Your task to perform on an android device: Show the shopping cart on amazon. Add razer blade to the cart on amazon, then select checkout. Image 0: 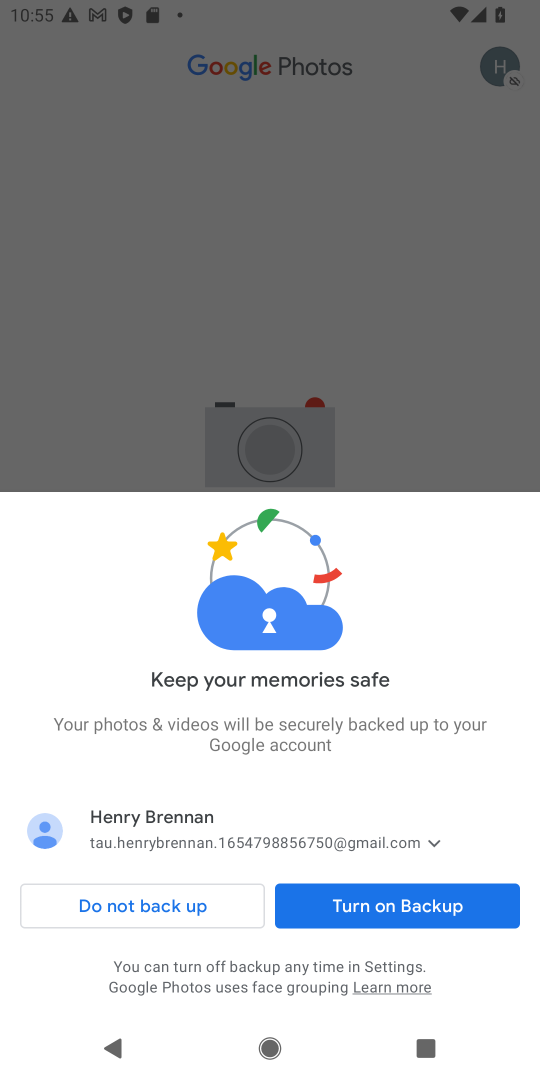
Step 0: press home button
Your task to perform on an android device: Show the shopping cart on amazon. Add razer blade to the cart on amazon, then select checkout. Image 1: 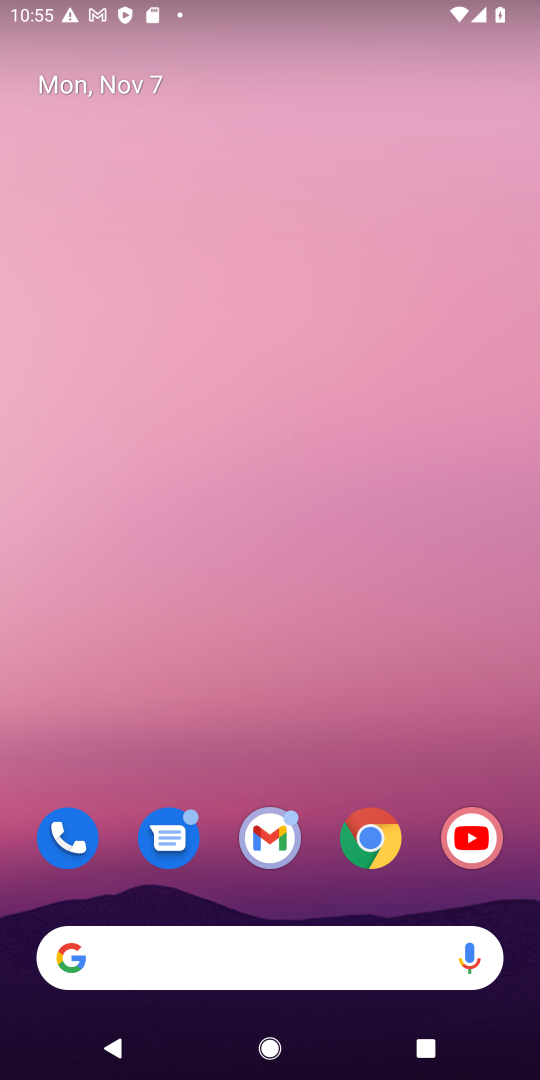
Step 1: click (379, 842)
Your task to perform on an android device: Show the shopping cart on amazon. Add razer blade to the cart on amazon, then select checkout. Image 2: 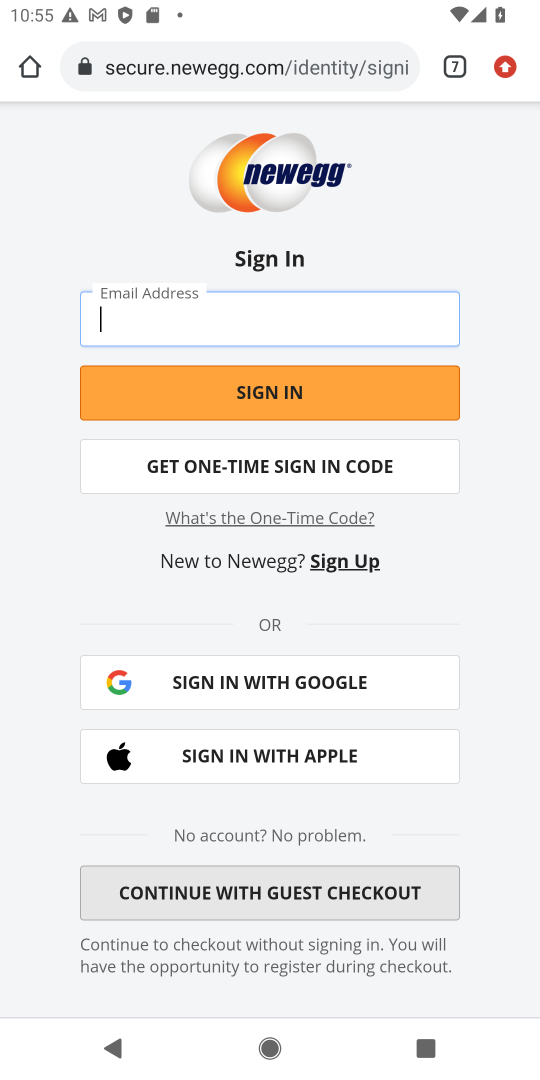
Step 2: click (444, 65)
Your task to perform on an android device: Show the shopping cart on amazon. Add razer blade to the cart on amazon, then select checkout. Image 3: 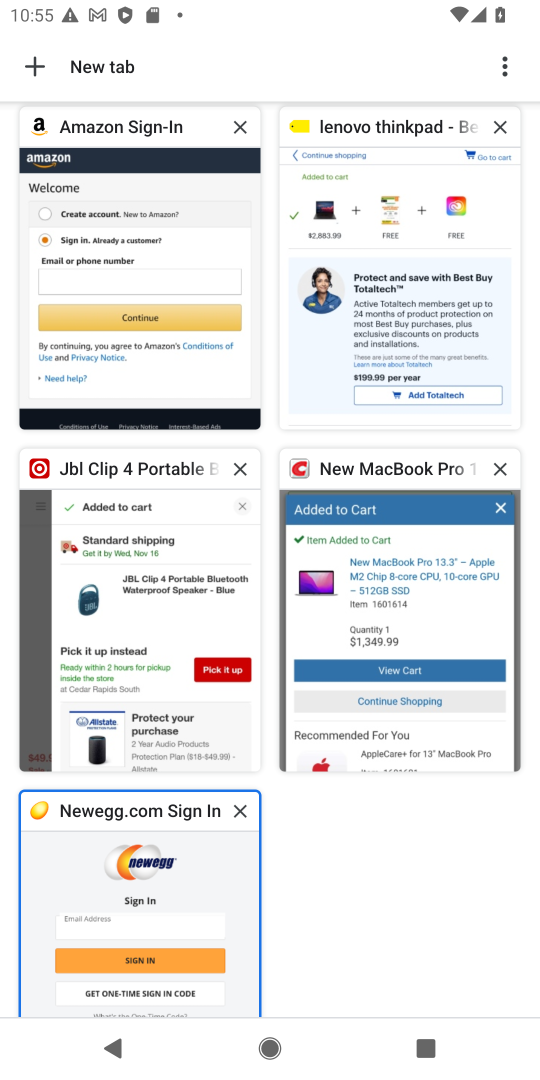
Step 3: click (177, 192)
Your task to perform on an android device: Show the shopping cart on amazon. Add razer blade to the cart on amazon, then select checkout. Image 4: 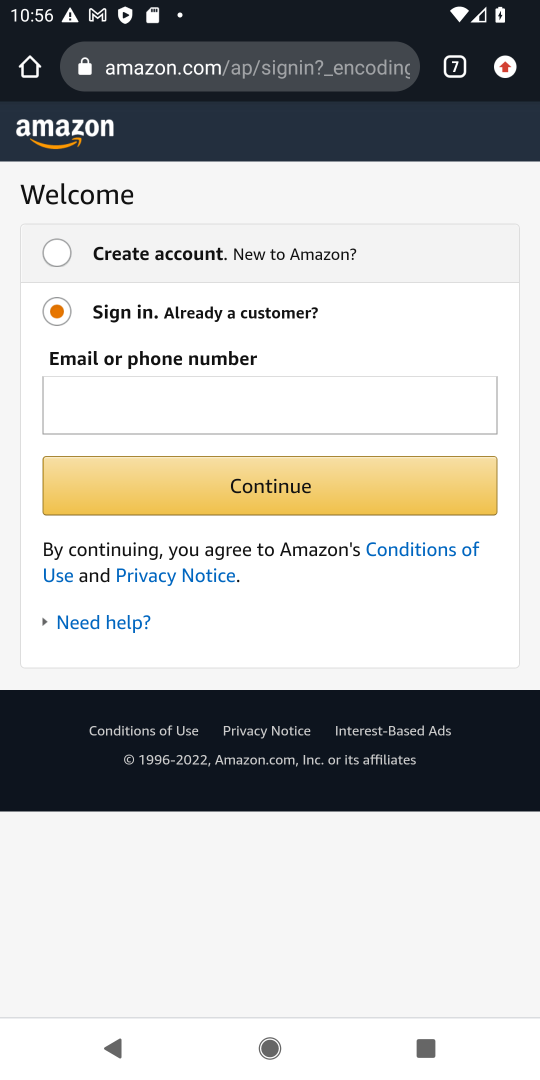
Step 4: press back button
Your task to perform on an android device: Show the shopping cart on amazon. Add razer blade to the cart on amazon, then select checkout. Image 5: 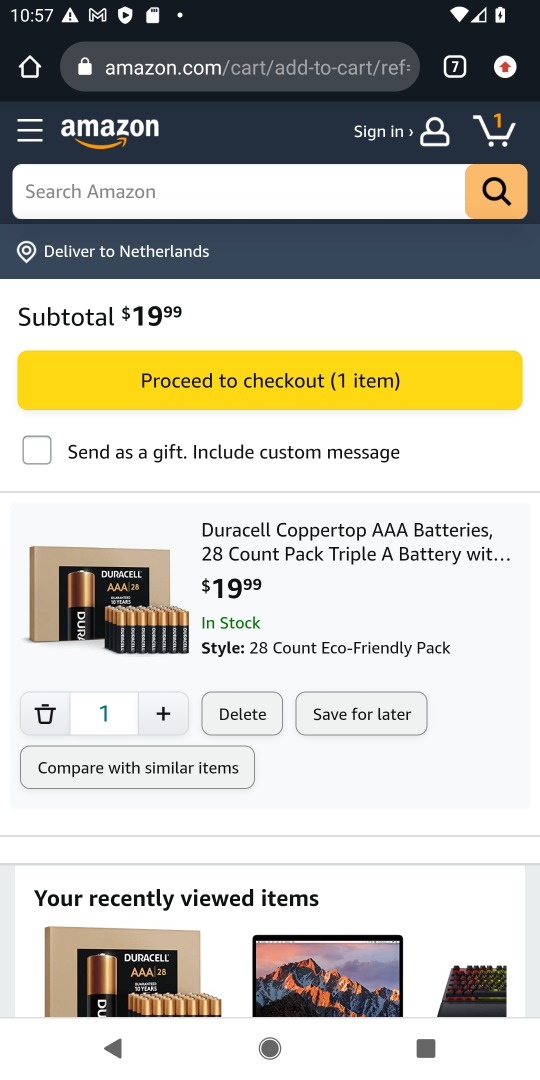
Step 5: click (239, 188)
Your task to perform on an android device: Show the shopping cart on amazon. Add razer blade to the cart on amazon, then select checkout. Image 6: 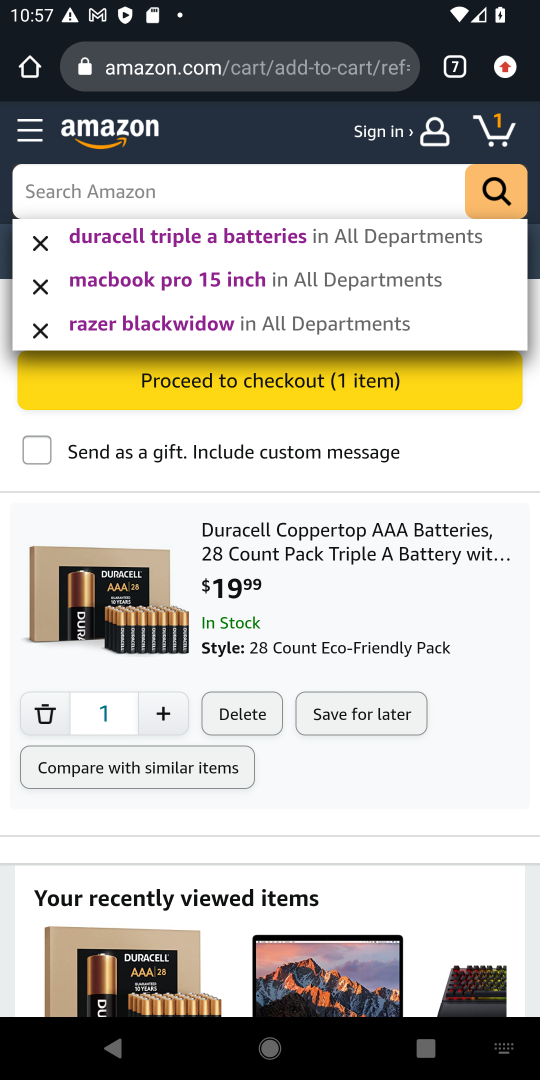
Step 6: type "razer blade"
Your task to perform on an android device: Show the shopping cart on amazon. Add razer blade to the cart on amazon, then select checkout. Image 7: 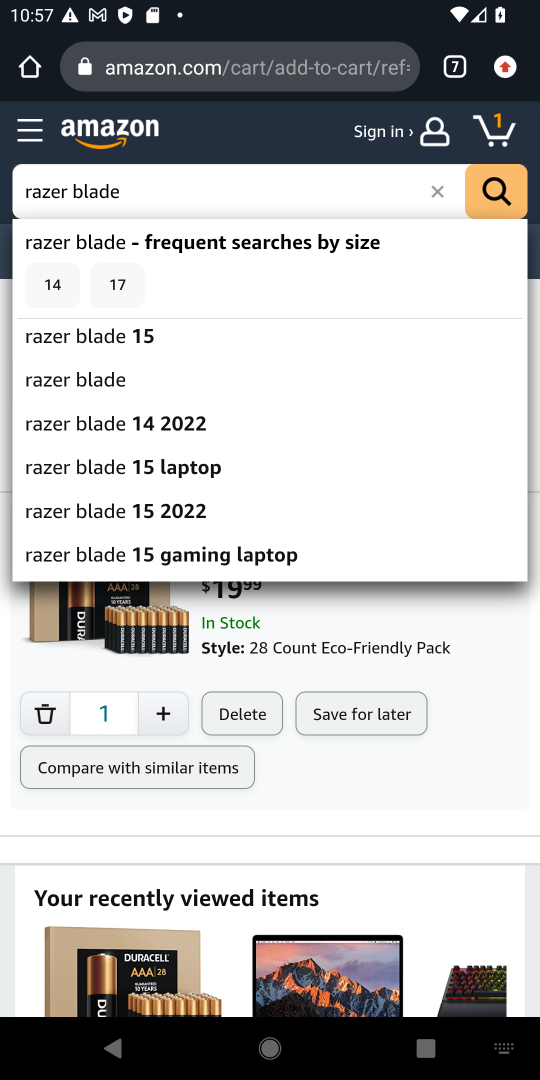
Step 7: click (51, 247)
Your task to perform on an android device: Show the shopping cart on amazon. Add razer blade to the cart on amazon, then select checkout. Image 8: 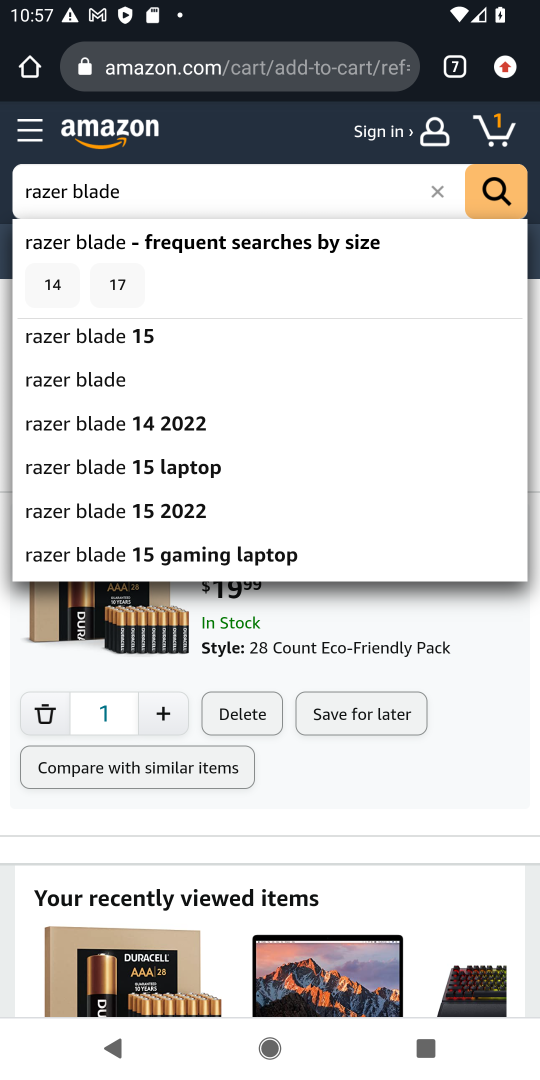
Step 8: click (47, 282)
Your task to perform on an android device: Show the shopping cart on amazon. Add razer blade to the cart on amazon, then select checkout. Image 9: 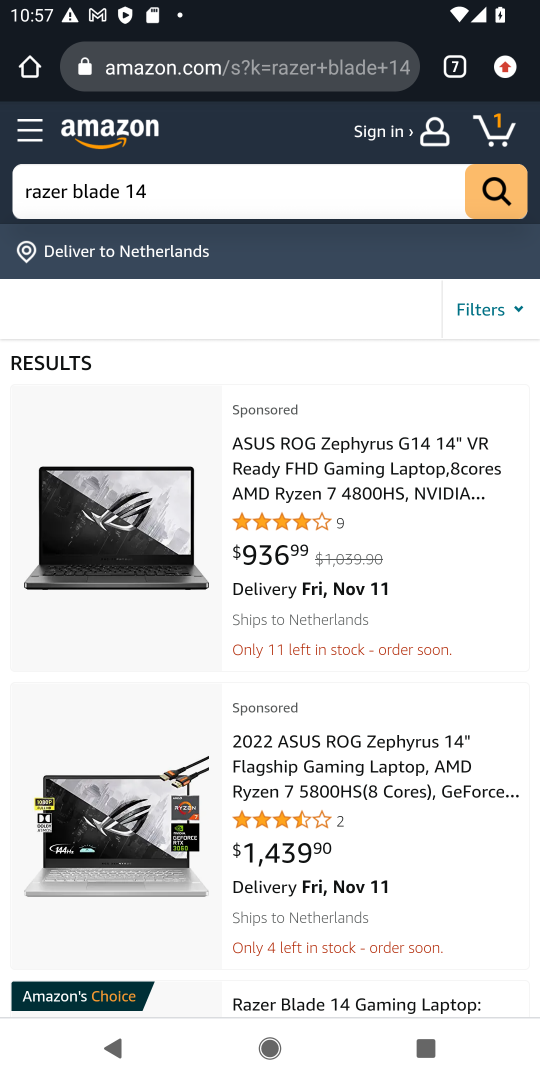
Step 9: click (500, 191)
Your task to perform on an android device: Show the shopping cart on amazon. Add razer blade to the cart on amazon, then select checkout. Image 10: 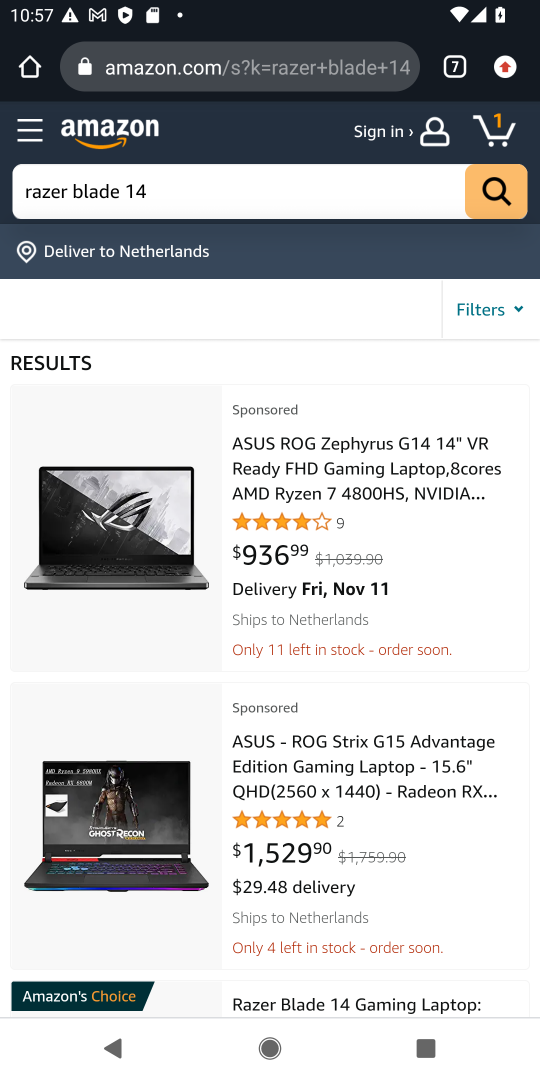
Step 10: drag from (354, 880) to (396, 316)
Your task to perform on an android device: Show the shopping cart on amazon. Add razer blade to the cart on amazon, then select checkout. Image 11: 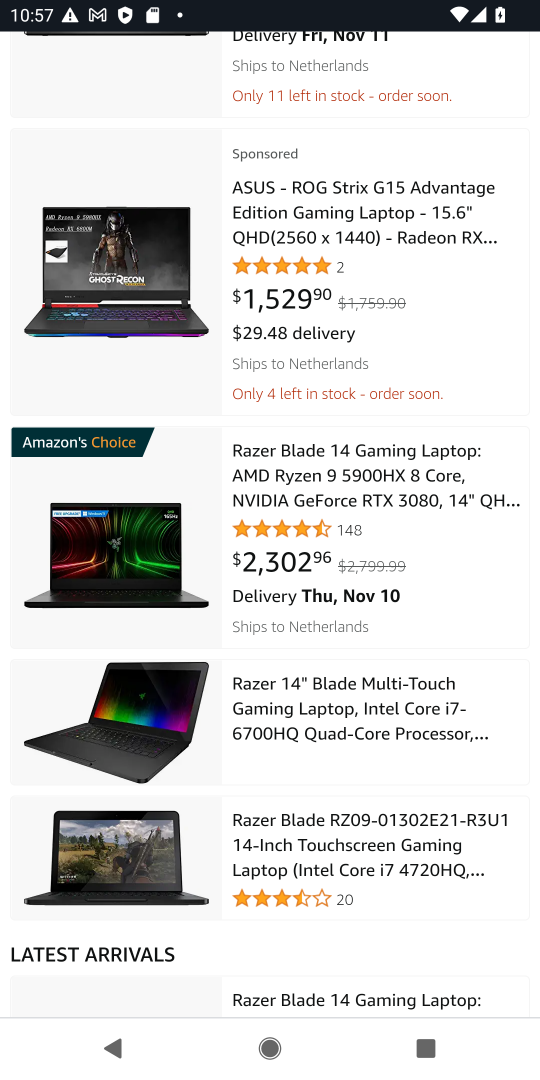
Step 11: click (339, 461)
Your task to perform on an android device: Show the shopping cart on amazon. Add razer blade to the cart on amazon, then select checkout. Image 12: 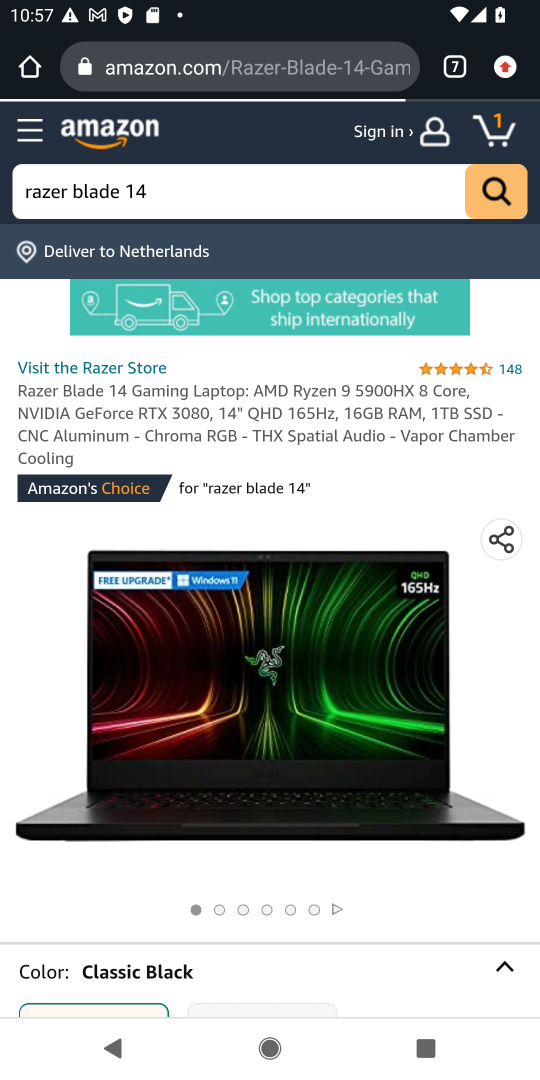
Step 12: drag from (350, 891) to (316, 281)
Your task to perform on an android device: Show the shopping cart on amazon. Add razer blade to the cart on amazon, then select checkout. Image 13: 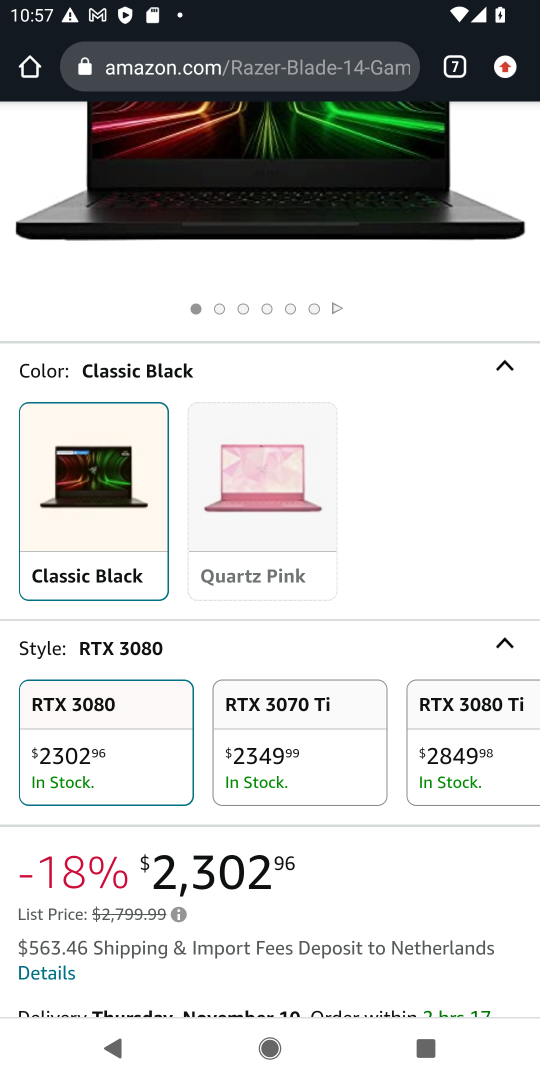
Step 13: click (417, 43)
Your task to perform on an android device: Show the shopping cart on amazon. Add razer blade to the cart on amazon, then select checkout. Image 14: 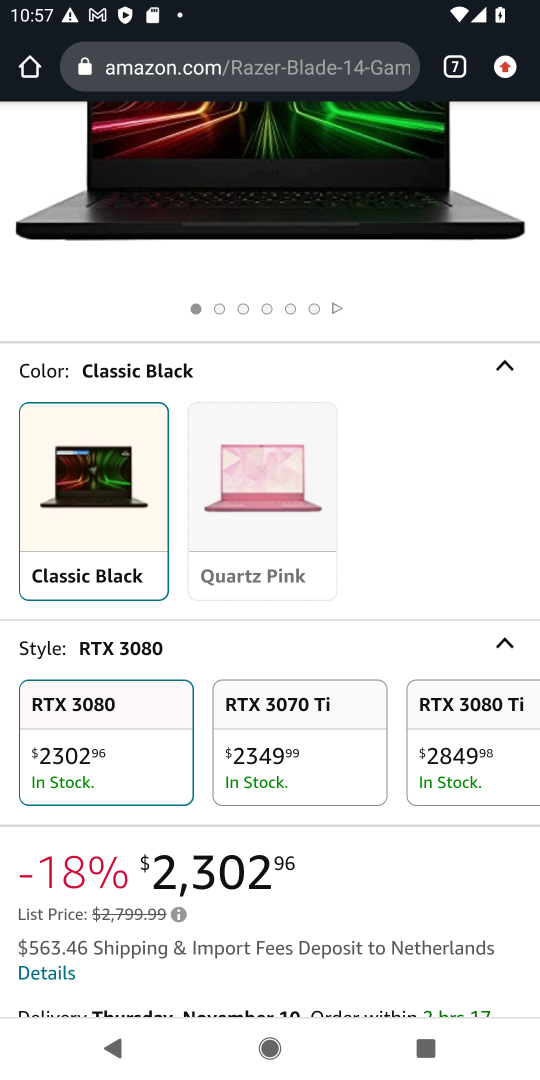
Step 14: drag from (227, 927) to (333, 289)
Your task to perform on an android device: Show the shopping cart on amazon. Add razer blade to the cart on amazon, then select checkout. Image 15: 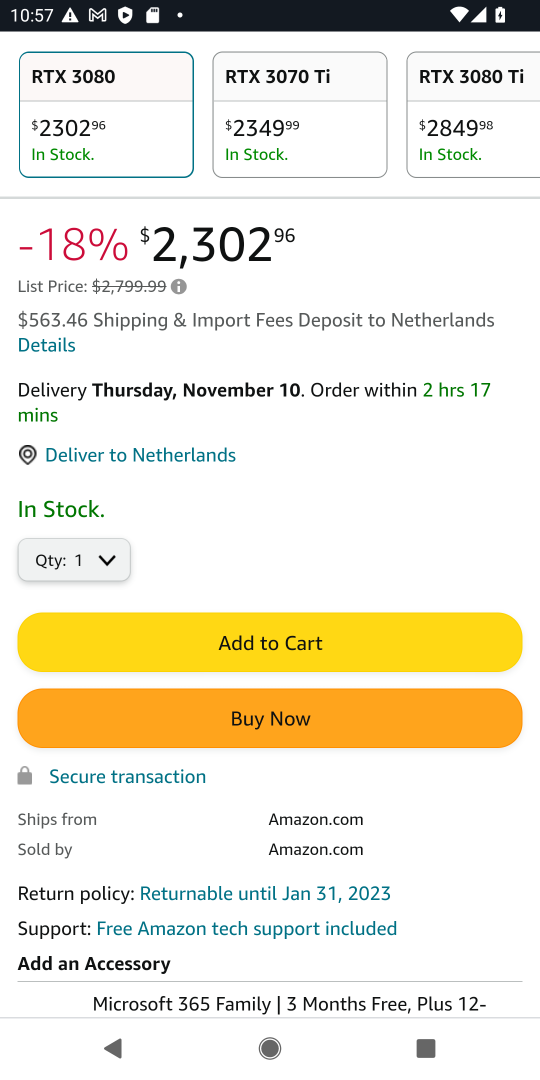
Step 15: click (306, 634)
Your task to perform on an android device: Show the shopping cart on amazon. Add razer blade to the cart on amazon, then select checkout. Image 16: 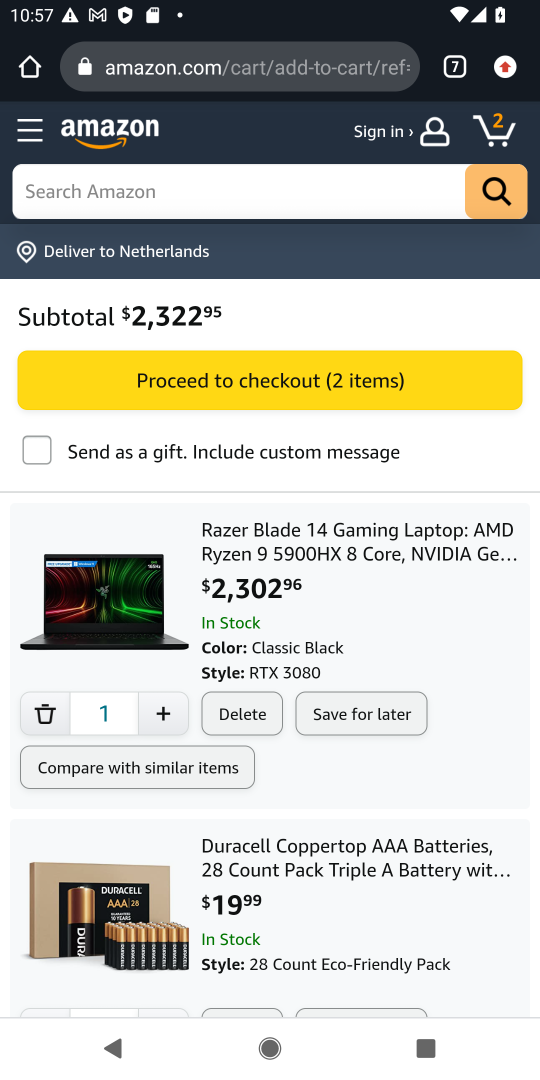
Step 16: click (267, 375)
Your task to perform on an android device: Show the shopping cart on amazon. Add razer blade to the cart on amazon, then select checkout. Image 17: 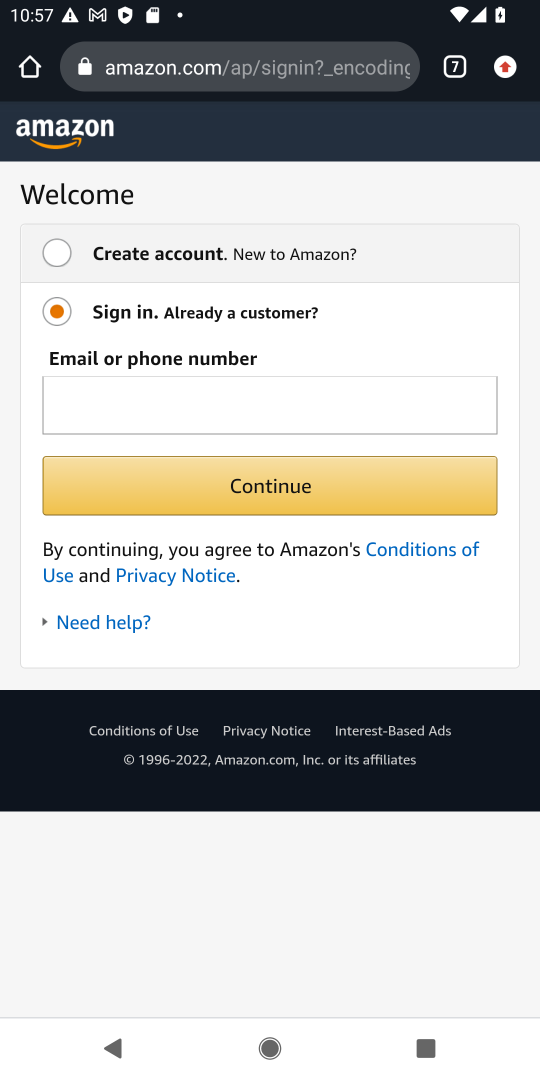
Step 17: task complete